Your task to perform on an android device: allow cookies in the chrome app Image 0: 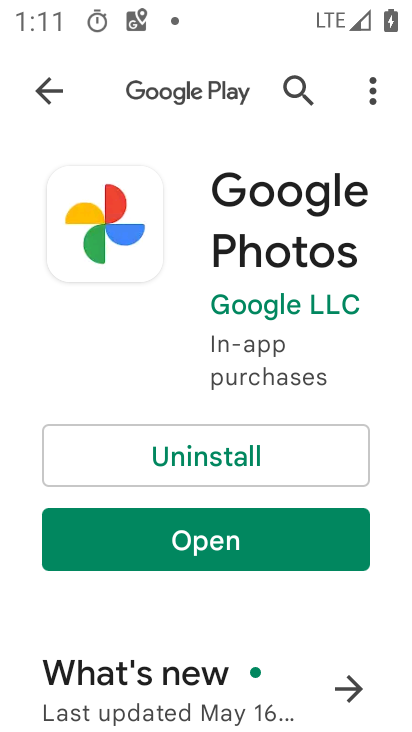
Step 0: press home button
Your task to perform on an android device: allow cookies in the chrome app Image 1: 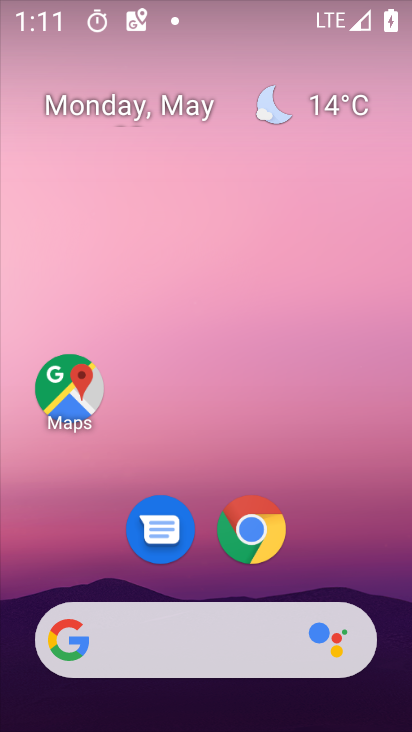
Step 1: drag from (383, 568) to (377, 181)
Your task to perform on an android device: allow cookies in the chrome app Image 2: 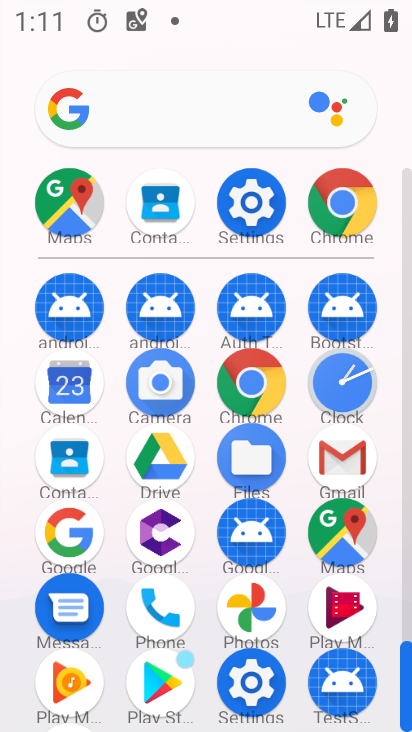
Step 2: click (265, 387)
Your task to perform on an android device: allow cookies in the chrome app Image 3: 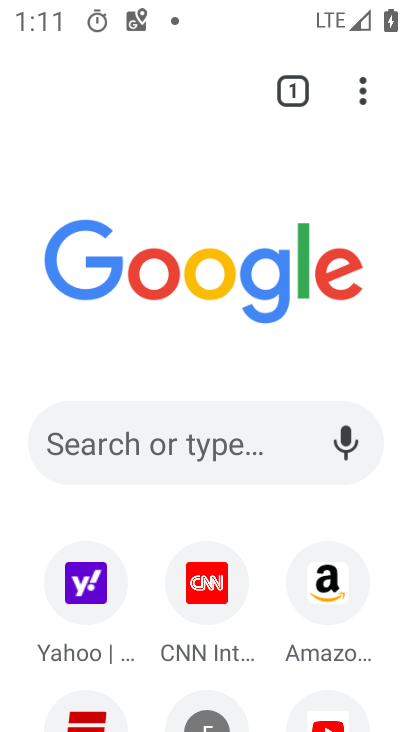
Step 3: click (365, 103)
Your task to perform on an android device: allow cookies in the chrome app Image 4: 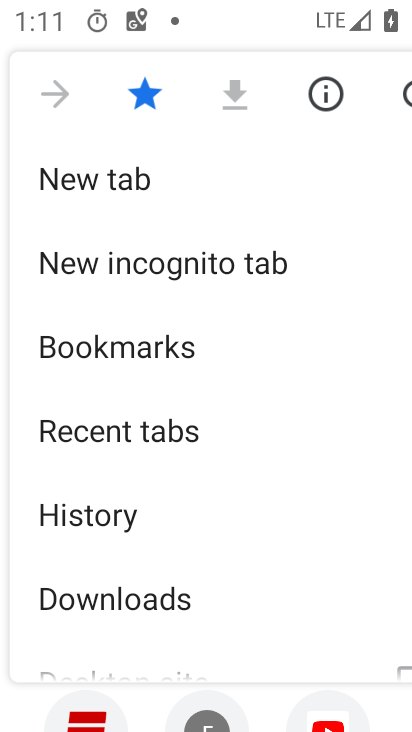
Step 4: drag from (234, 587) to (267, 449)
Your task to perform on an android device: allow cookies in the chrome app Image 5: 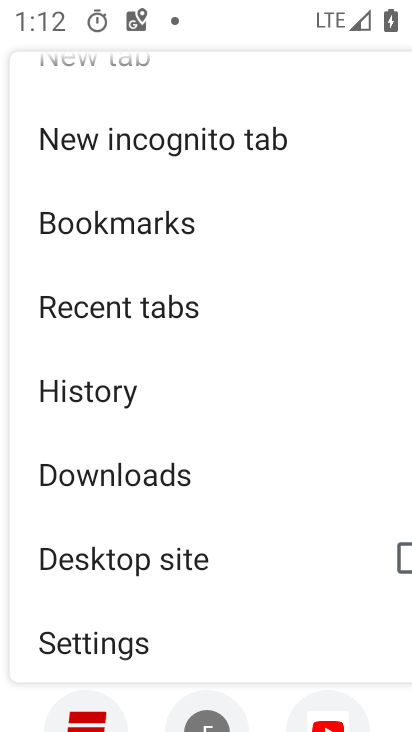
Step 5: drag from (276, 583) to (287, 431)
Your task to perform on an android device: allow cookies in the chrome app Image 6: 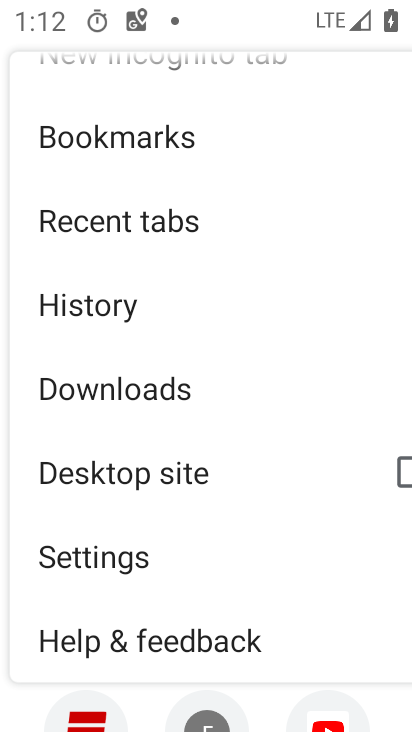
Step 6: click (124, 559)
Your task to perform on an android device: allow cookies in the chrome app Image 7: 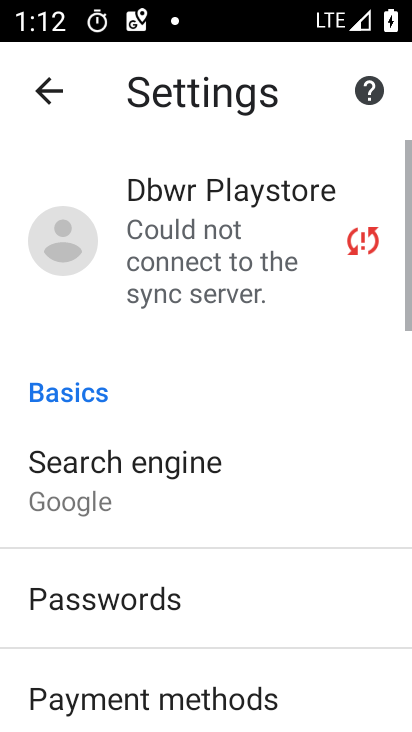
Step 7: drag from (302, 621) to (333, 458)
Your task to perform on an android device: allow cookies in the chrome app Image 8: 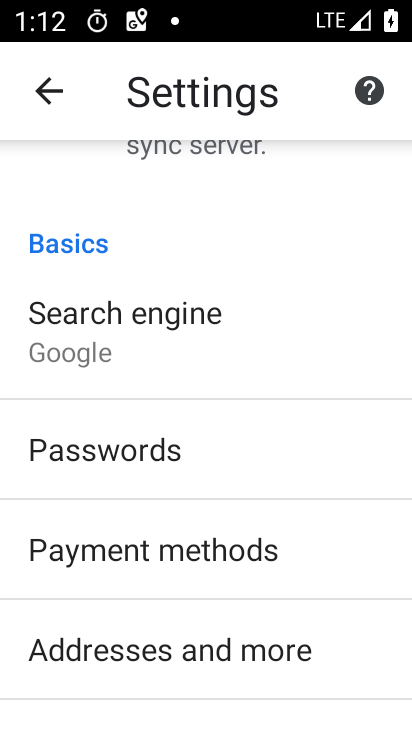
Step 8: drag from (332, 576) to (358, 463)
Your task to perform on an android device: allow cookies in the chrome app Image 9: 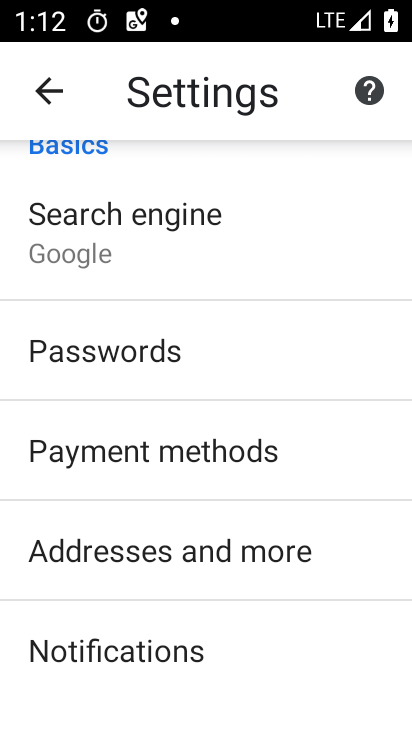
Step 9: drag from (335, 629) to (336, 501)
Your task to perform on an android device: allow cookies in the chrome app Image 10: 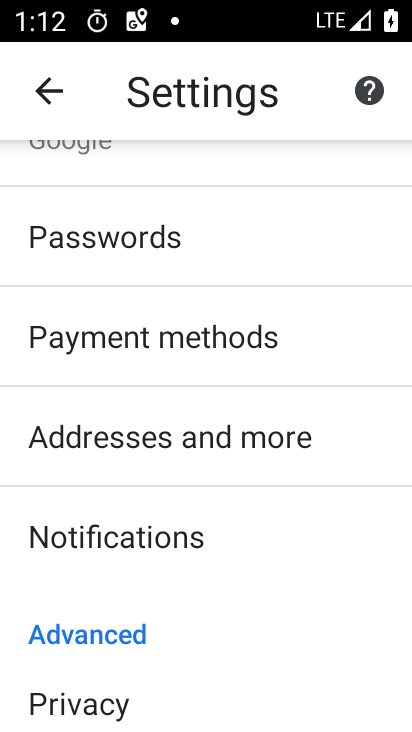
Step 10: drag from (338, 632) to (330, 523)
Your task to perform on an android device: allow cookies in the chrome app Image 11: 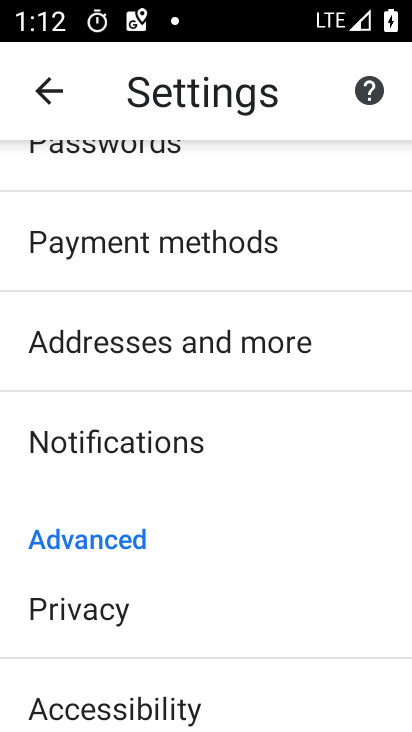
Step 11: drag from (304, 624) to (305, 499)
Your task to perform on an android device: allow cookies in the chrome app Image 12: 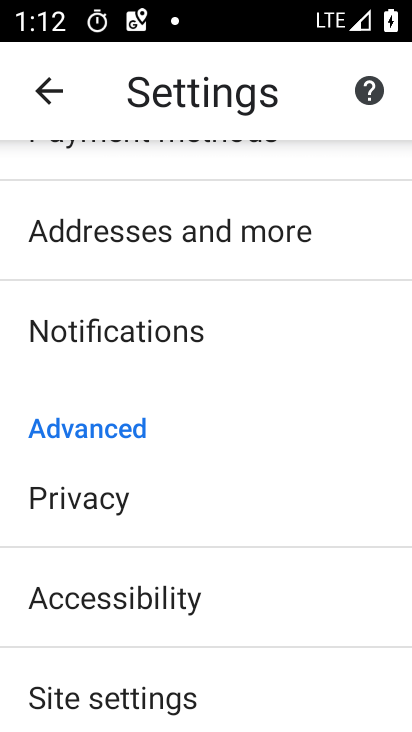
Step 12: drag from (285, 602) to (283, 460)
Your task to perform on an android device: allow cookies in the chrome app Image 13: 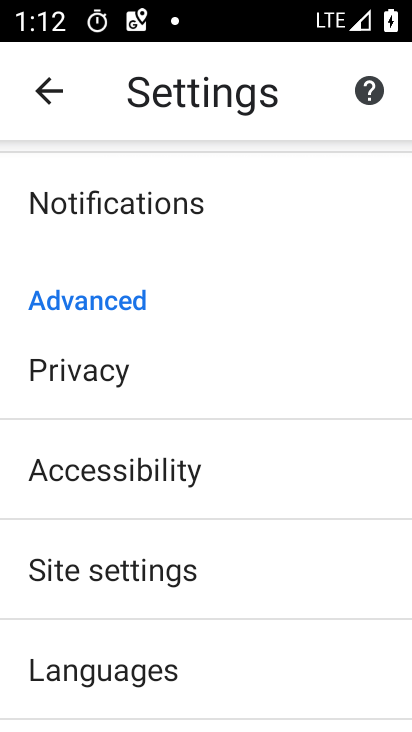
Step 13: drag from (264, 634) to (275, 507)
Your task to perform on an android device: allow cookies in the chrome app Image 14: 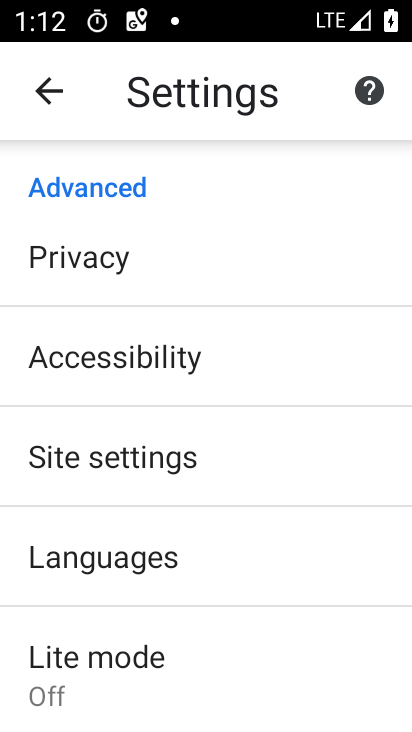
Step 14: click (266, 475)
Your task to perform on an android device: allow cookies in the chrome app Image 15: 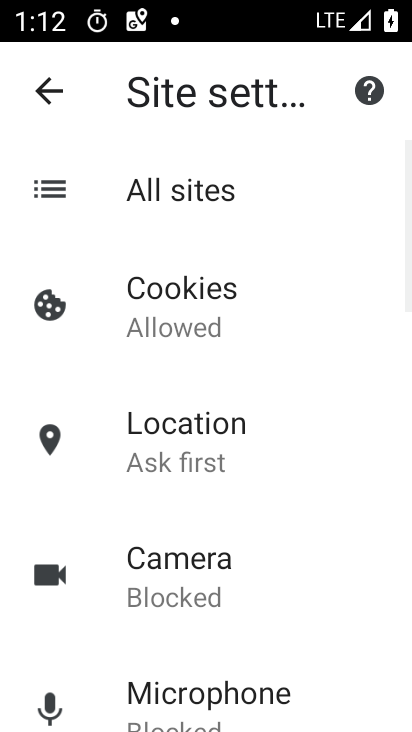
Step 15: click (246, 319)
Your task to perform on an android device: allow cookies in the chrome app Image 16: 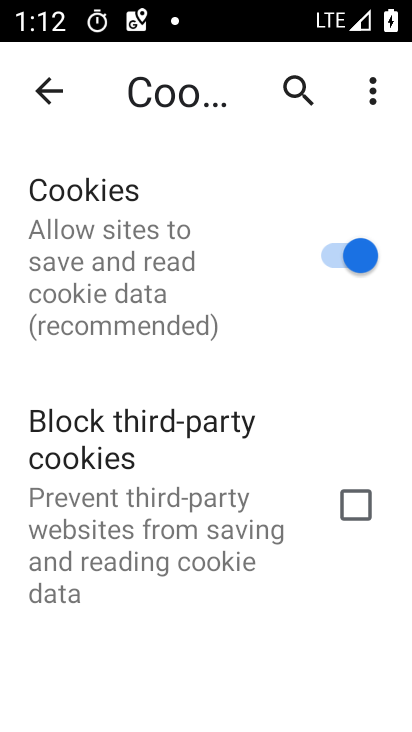
Step 16: task complete